Your task to perform on an android device: snooze an email in the gmail app Image 0: 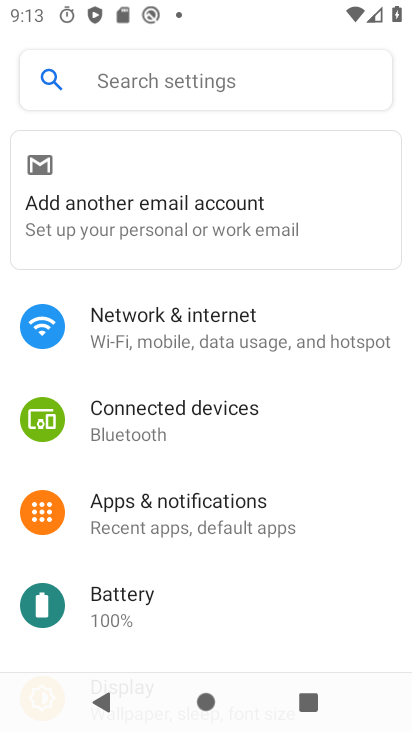
Step 0: press home button
Your task to perform on an android device: snooze an email in the gmail app Image 1: 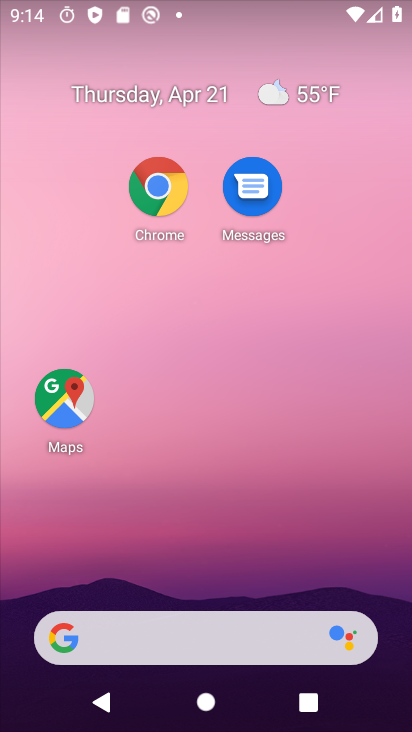
Step 1: drag from (197, 566) to (221, 58)
Your task to perform on an android device: snooze an email in the gmail app Image 2: 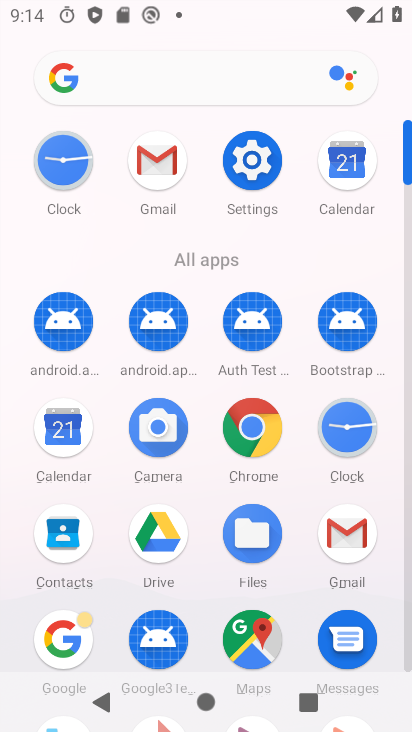
Step 2: click (158, 169)
Your task to perform on an android device: snooze an email in the gmail app Image 3: 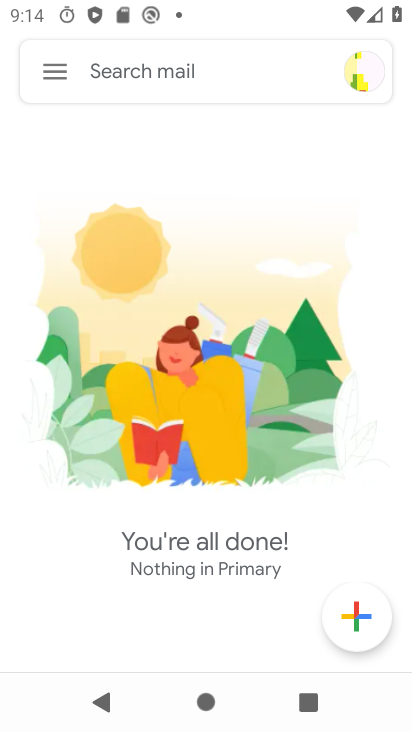
Step 3: task complete